Your task to perform on an android device: open a bookmark in the chrome app Image 0: 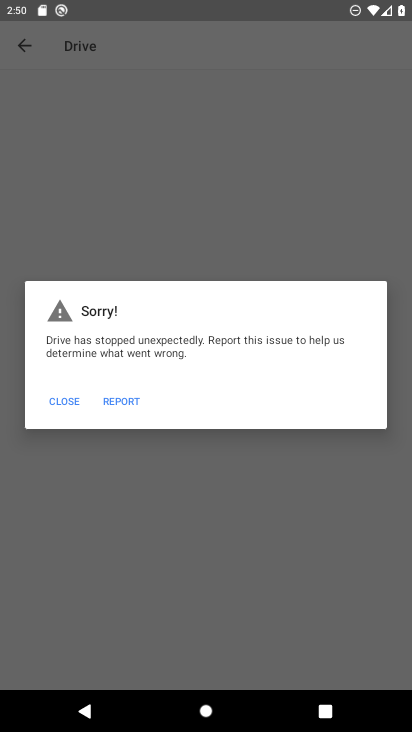
Step 0: press home button
Your task to perform on an android device: open a bookmark in the chrome app Image 1: 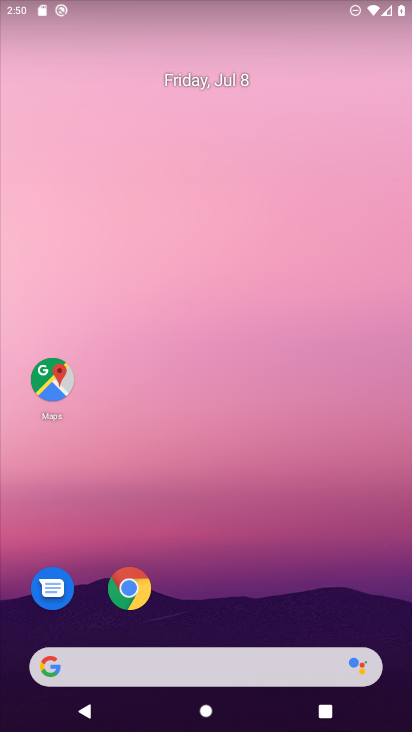
Step 1: click (126, 595)
Your task to perform on an android device: open a bookmark in the chrome app Image 2: 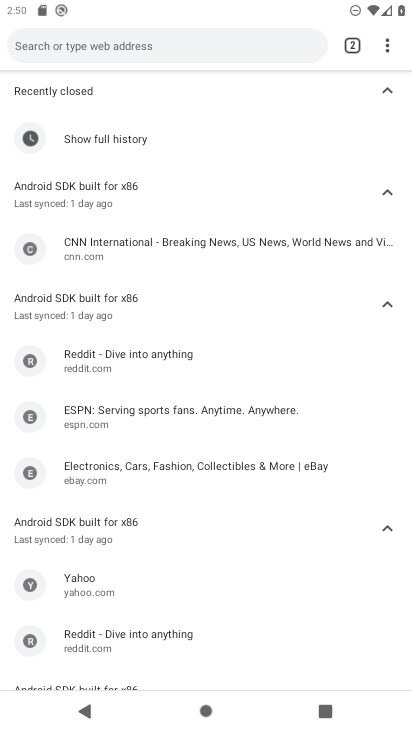
Step 2: press back button
Your task to perform on an android device: open a bookmark in the chrome app Image 3: 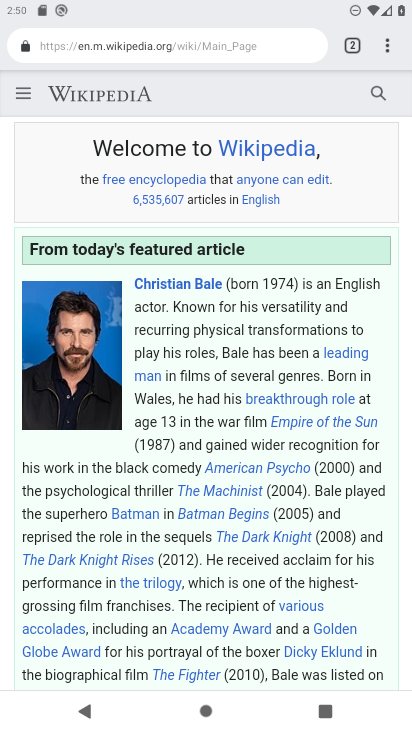
Step 3: click (385, 53)
Your task to perform on an android device: open a bookmark in the chrome app Image 4: 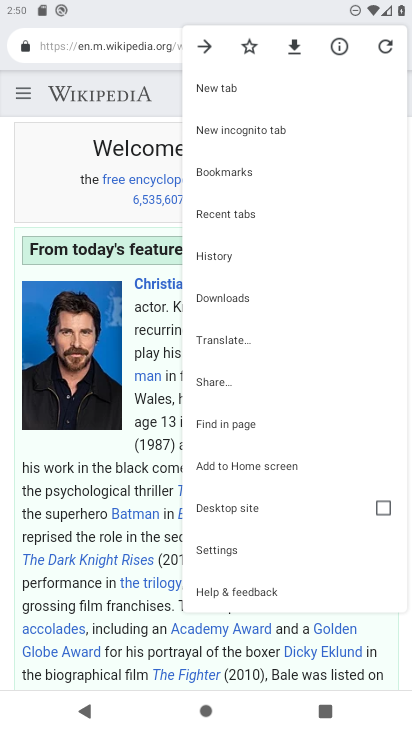
Step 4: click (257, 173)
Your task to perform on an android device: open a bookmark in the chrome app Image 5: 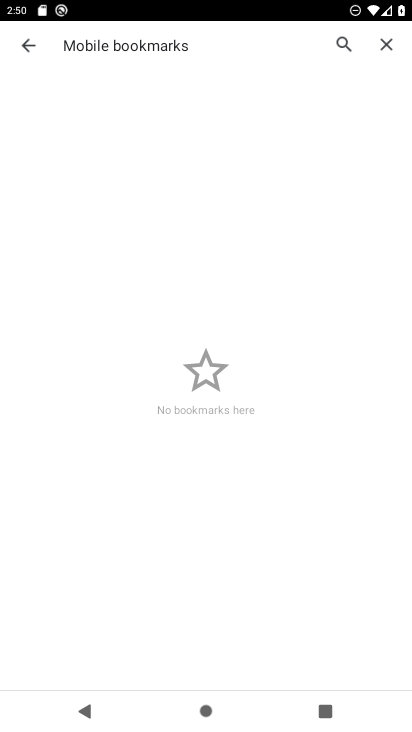
Step 5: task complete